Your task to perform on an android device: make emails show in primary in the gmail app Image 0: 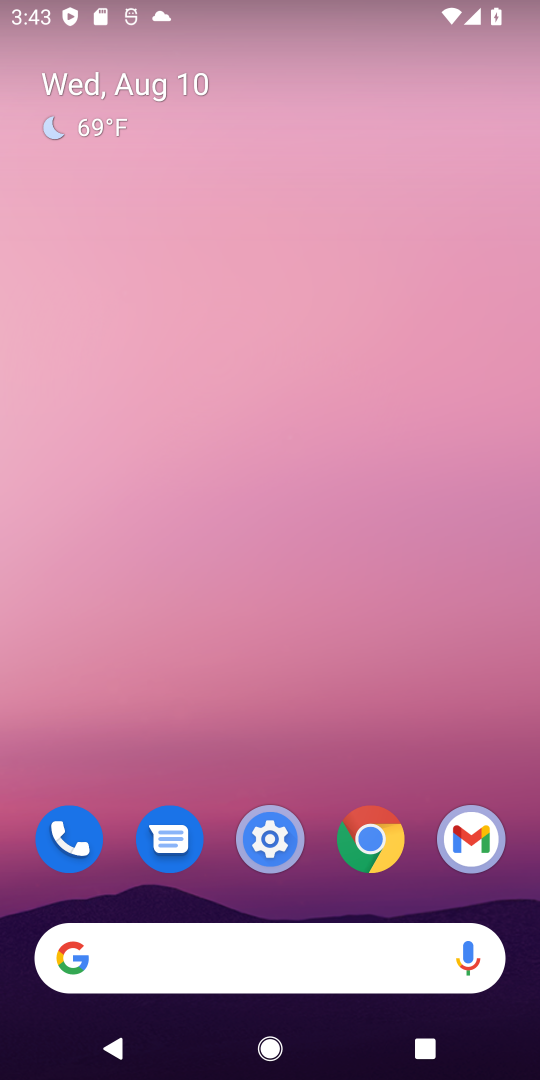
Step 0: drag from (299, 737) to (309, 655)
Your task to perform on an android device: make emails show in primary in the gmail app Image 1: 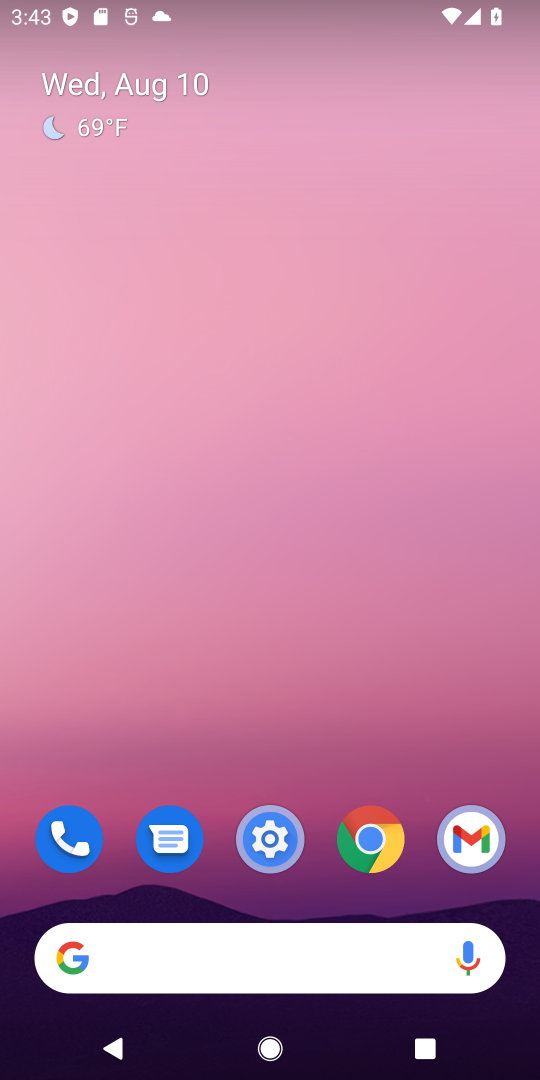
Step 1: click (468, 831)
Your task to perform on an android device: make emails show in primary in the gmail app Image 2: 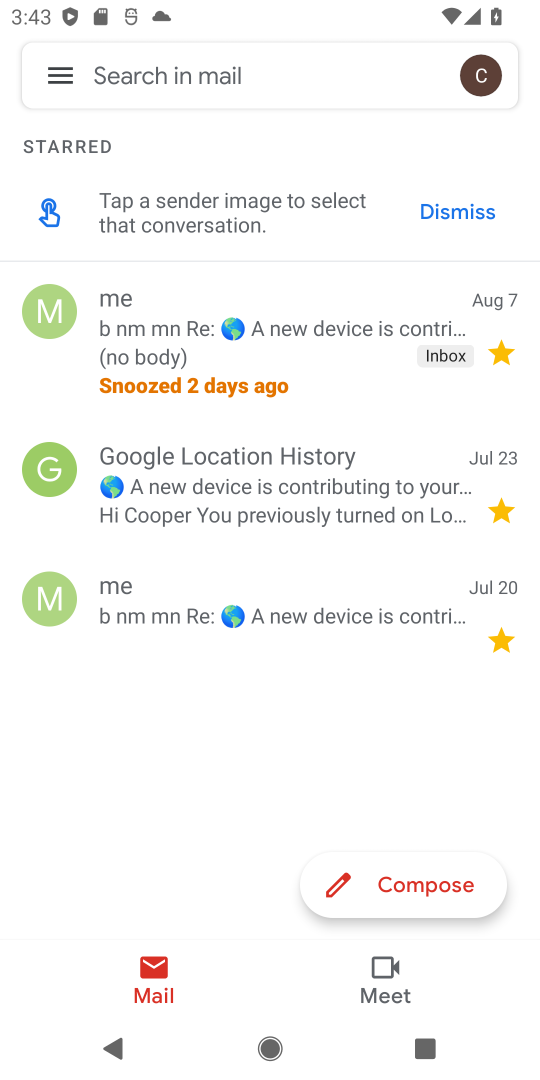
Step 2: click (64, 79)
Your task to perform on an android device: make emails show in primary in the gmail app Image 3: 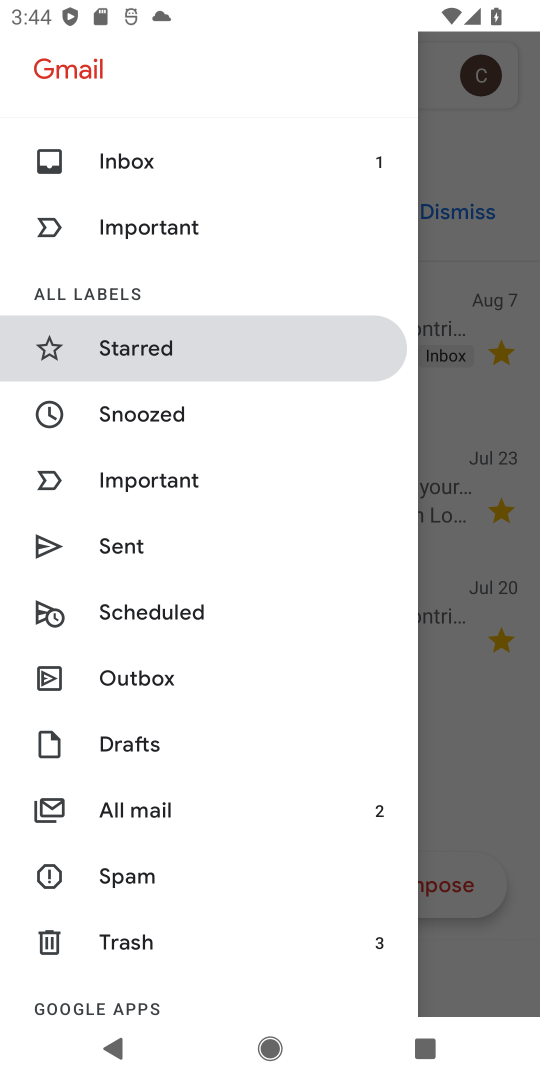
Step 3: drag from (205, 812) to (244, 58)
Your task to perform on an android device: make emails show in primary in the gmail app Image 4: 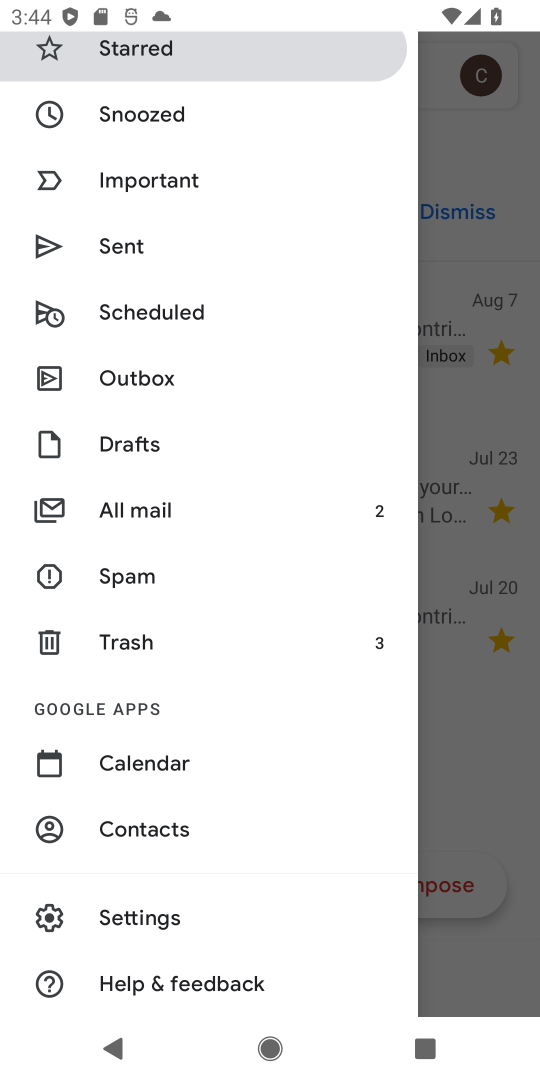
Step 4: click (174, 909)
Your task to perform on an android device: make emails show in primary in the gmail app Image 5: 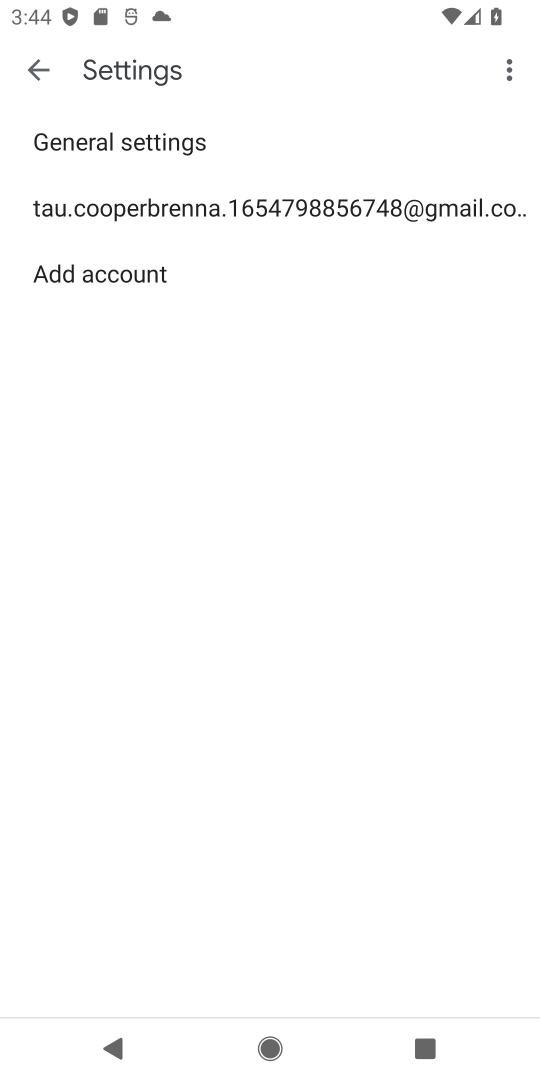
Step 5: click (163, 205)
Your task to perform on an android device: make emails show in primary in the gmail app Image 6: 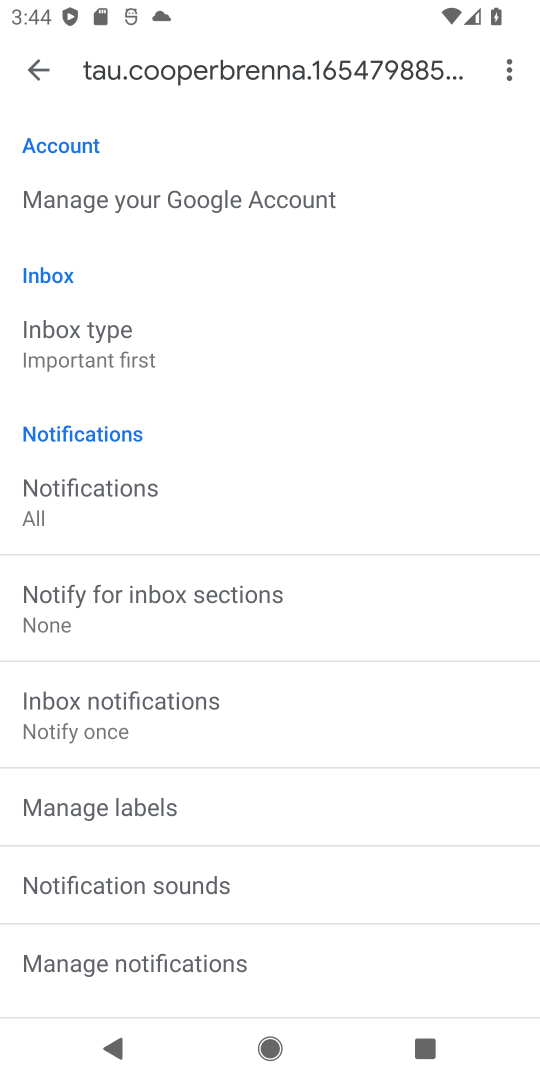
Step 6: click (134, 346)
Your task to perform on an android device: make emails show in primary in the gmail app Image 7: 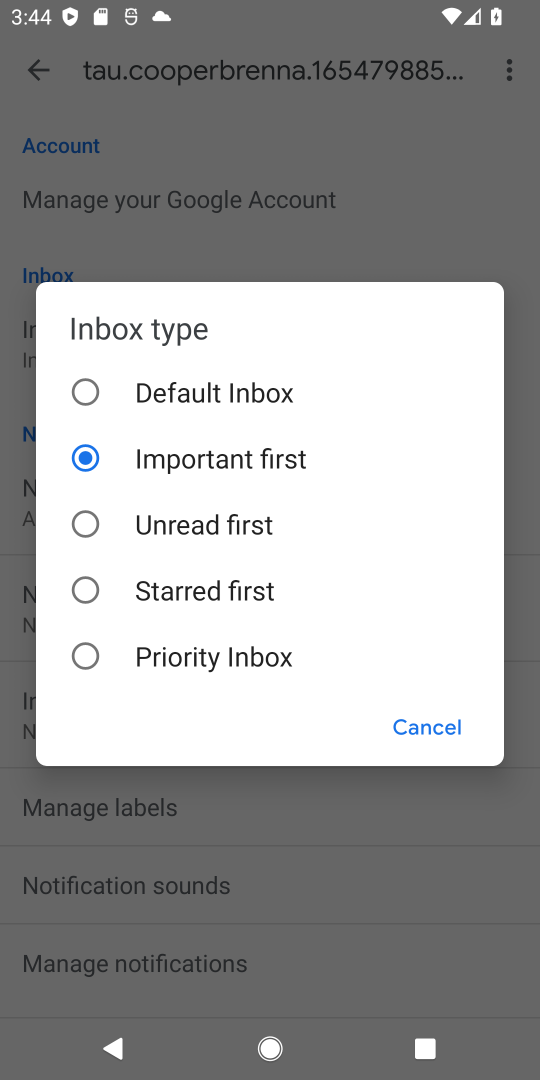
Step 7: click (81, 385)
Your task to perform on an android device: make emails show in primary in the gmail app Image 8: 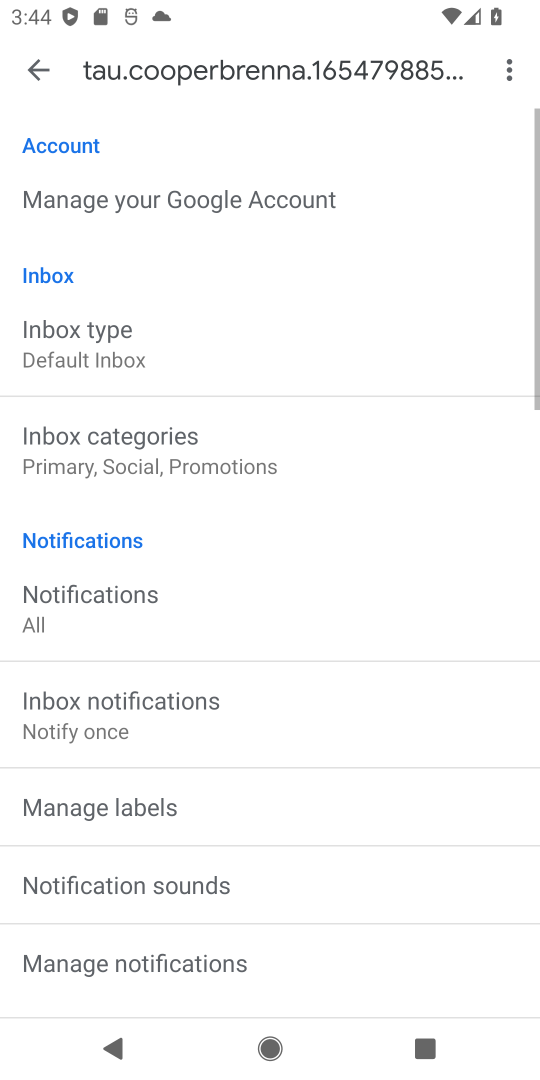
Step 8: click (76, 448)
Your task to perform on an android device: make emails show in primary in the gmail app Image 9: 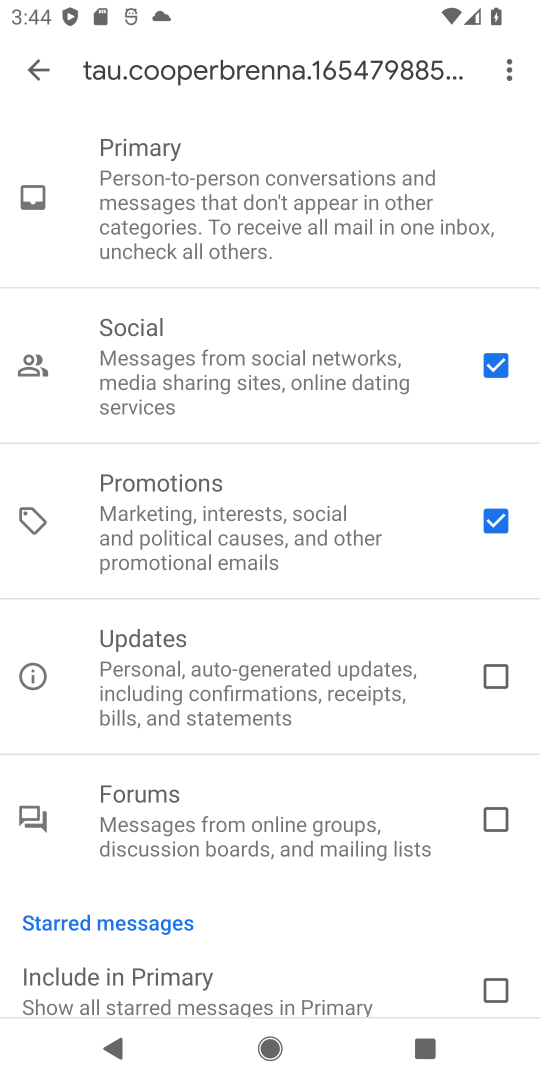
Step 9: click (491, 517)
Your task to perform on an android device: make emails show in primary in the gmail app Image 10: 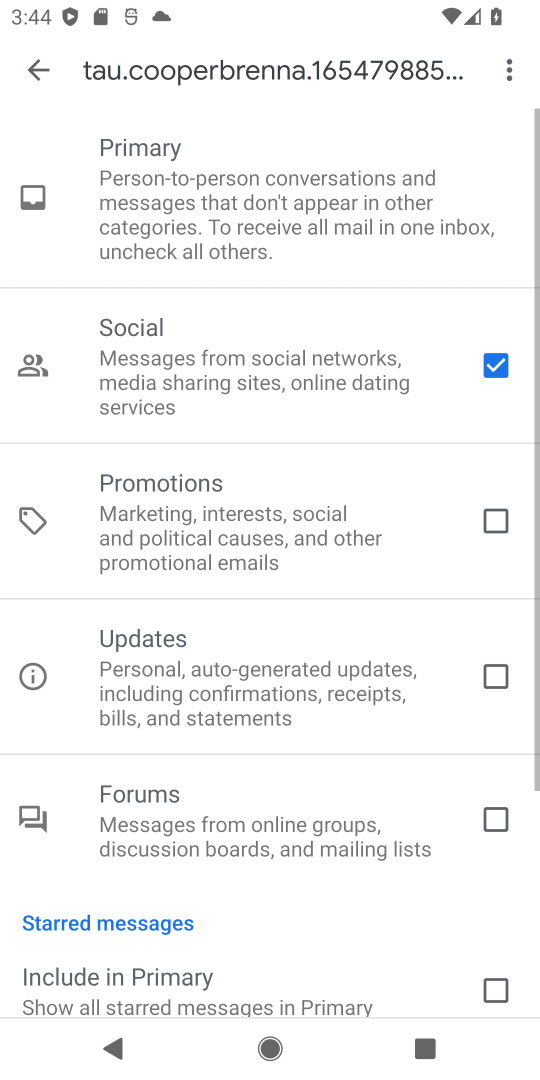
Step 10: click (499, 368)
Your task to perform on an android device: make emails show in primary in the gmail app Image 11: 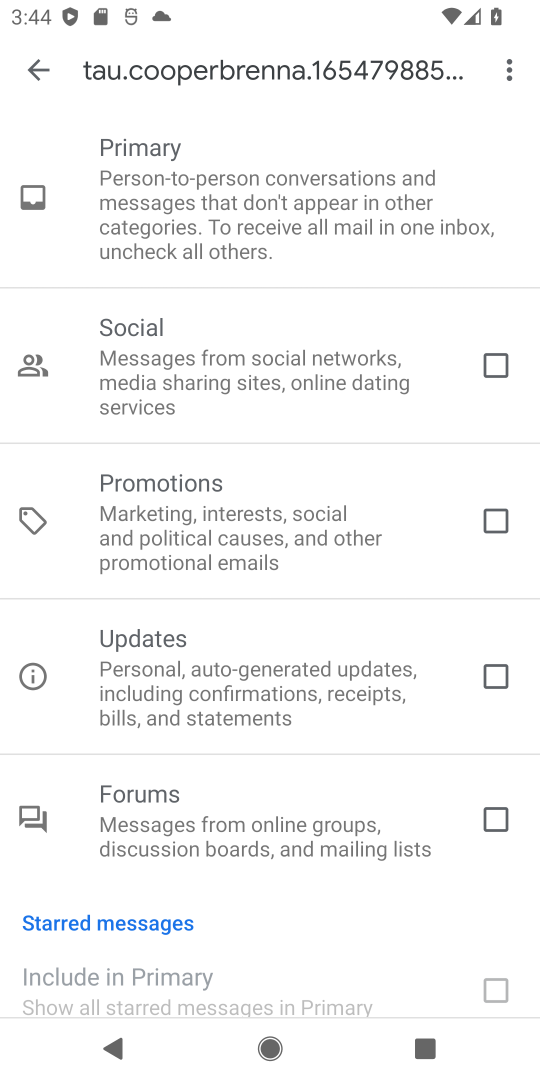
Step 11: click (45, 71)
Your task to perform on an android device: make emails show in primary in the gmail app Image 12: 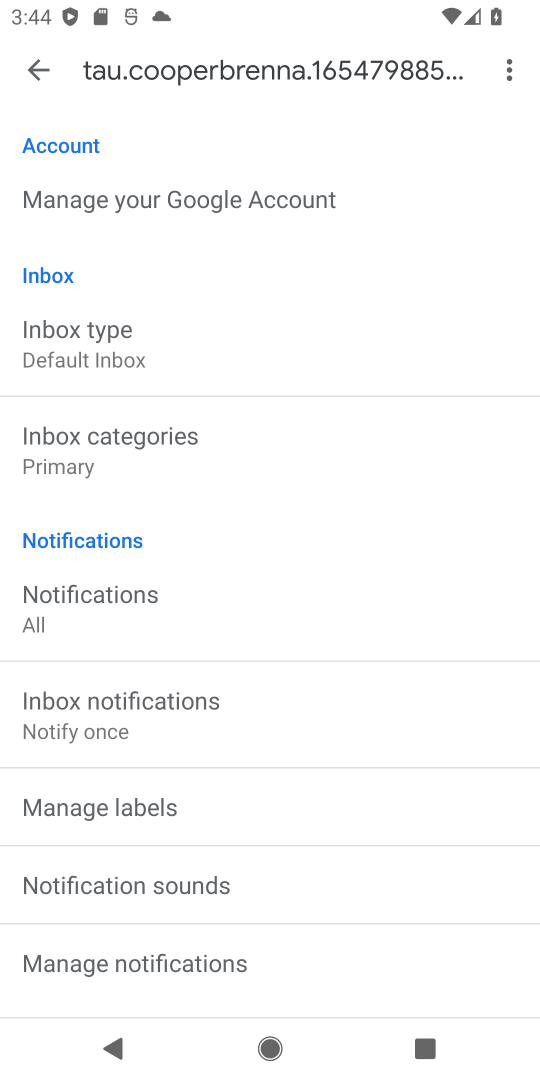
Step 12: task complete